Your task to perform on an android device: open chrome and create a bookmark for the current page Image 0: 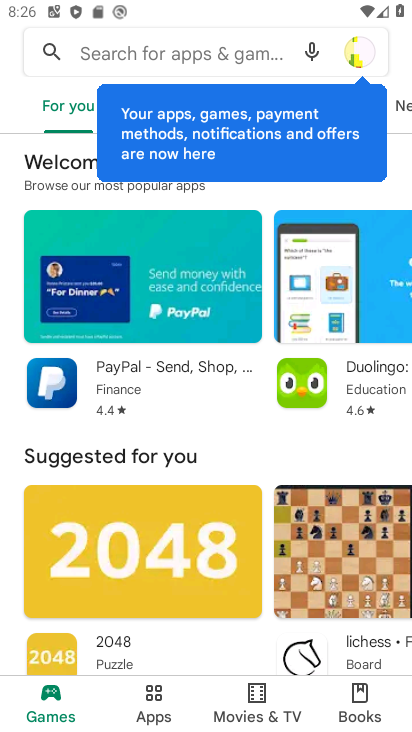
Step 0: press home button
Your task to perform on an android device: open chrome and create a bookmark for the current page Image 1: 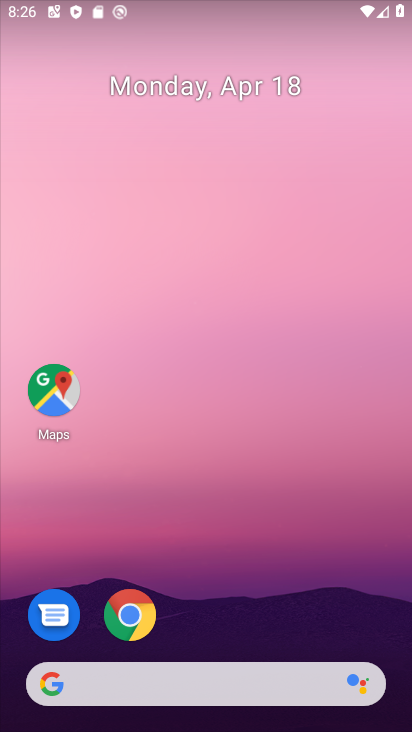
Step 1: click (133, 607)
Your task to perform on an android device: open chrome and create a bookmark for the current page Image 2: 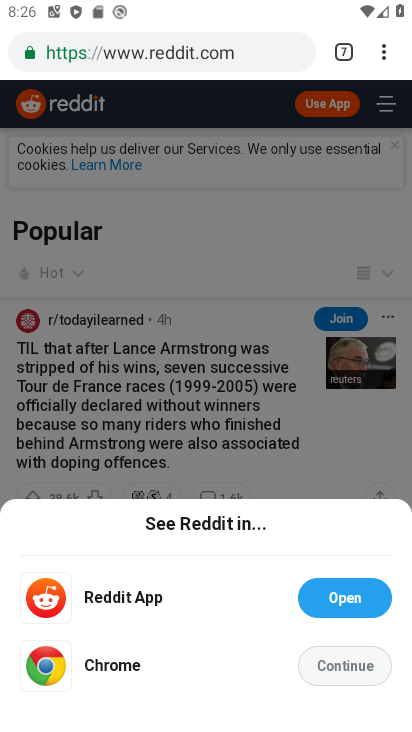
Step 2: drag from (385, 48) to (221, 44)
Your task to perform on an android device: open chrome and create a bookmark for the current page Image 3: 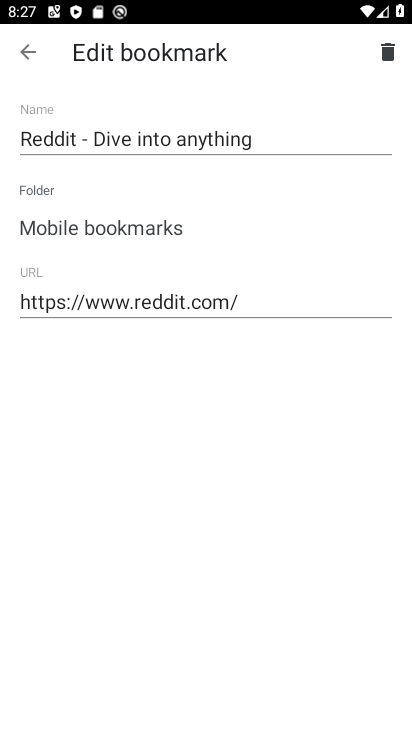
Step 3: click (26, 46)
Your task to perform on an android device: open chrome and create a bookmark for the current page Image 4: 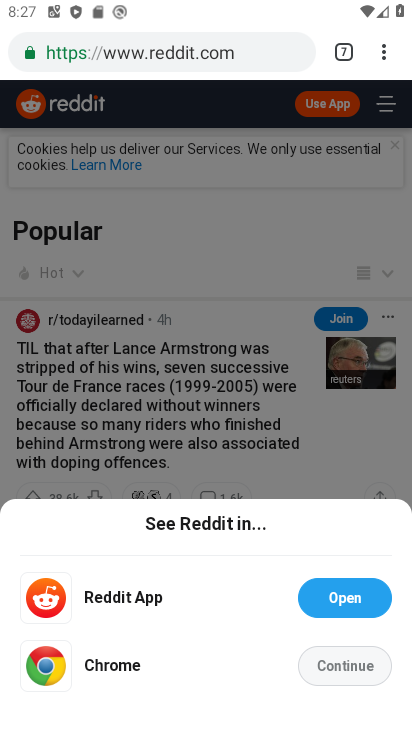
Step 4: task complete